Your task to perform on an android device: toggle priority inbox in the gmail app Image 0: 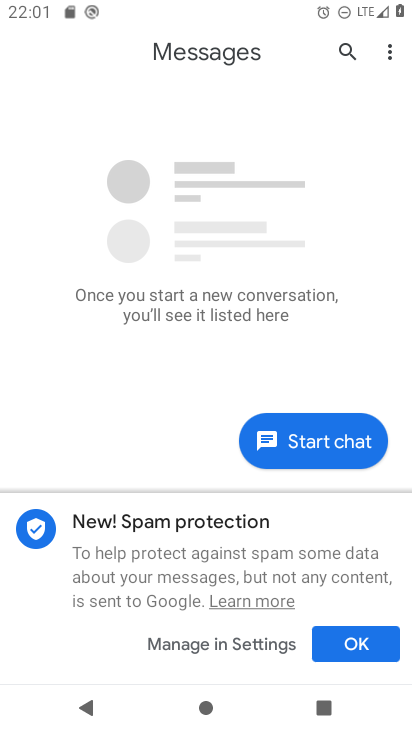
Step 0: press home button
Your task to perform on an android device: toggle priority inbox in the gmail app Image 1: 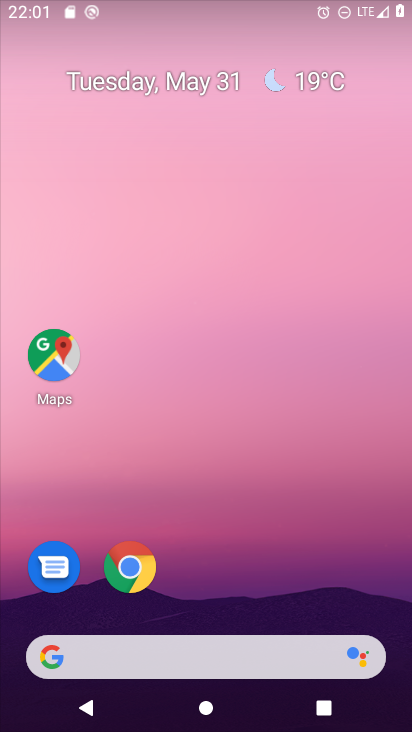
Step 1: drag from (132, 632) to (130, 223)
Your task to perform on an android device: toggle priority inbox in the gmail app Image 2: 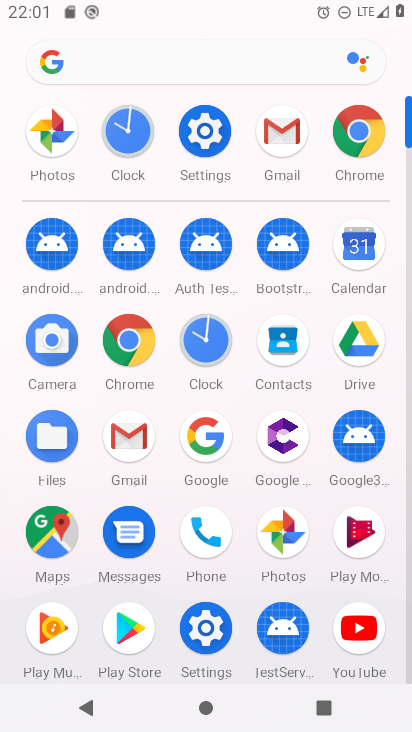
Step 2: click (140, 345)
Your task to perform on an android device: toggle priority inbox in the gmail app Image 3: 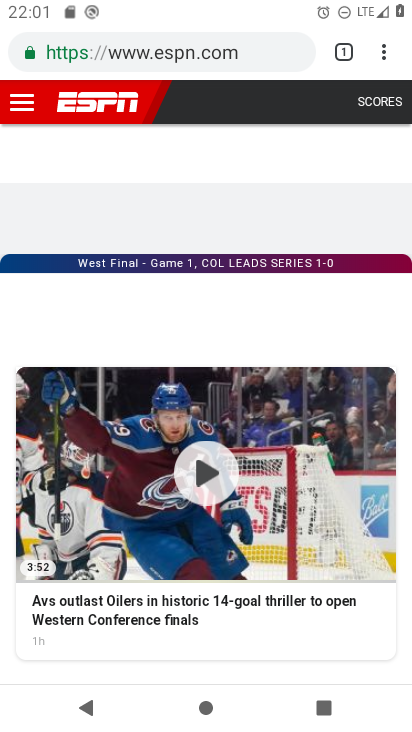
Step 3: click (256, 53)
Your task to perform on an android device: toggle priority inbox in the gmail app Image 4: 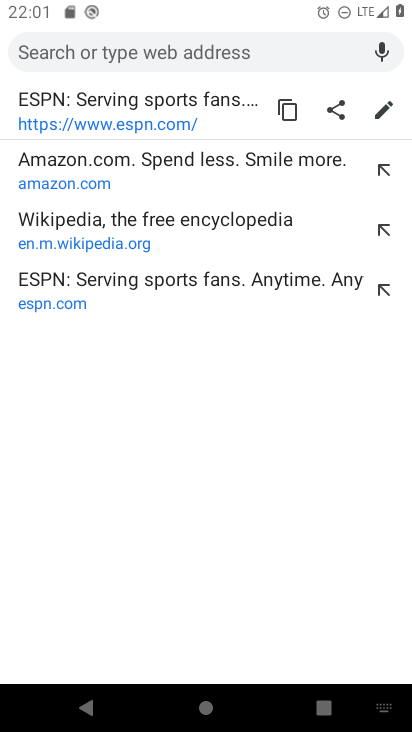
Step 4: press home button
Your task to perform on an android device: toggle priority inbox in the gmail app Image 5: 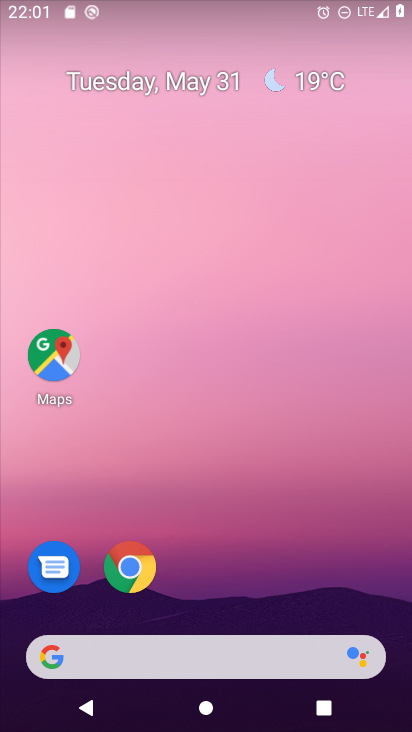
Step 5: drag from (176, 598) to (234, 239)
Your task to perform on an android device: toggle priority inbox in the gmail app Image 6: 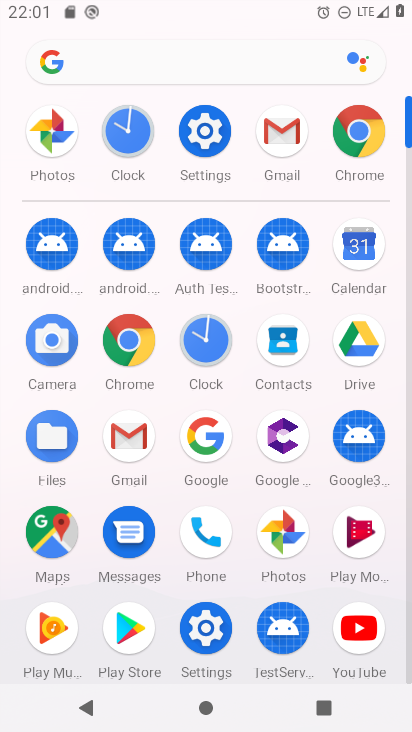
Step 6: click (286, 134)
Your task to perform on an android device: toggle priority inbox in the gmail app Image 7: 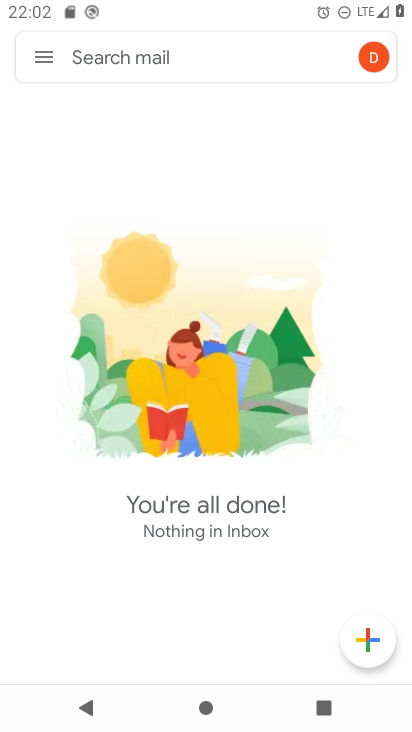
Step 7: click (43, 60)
Your task to perform on an android device: toggle priority inbox in the gmail app Image 8: 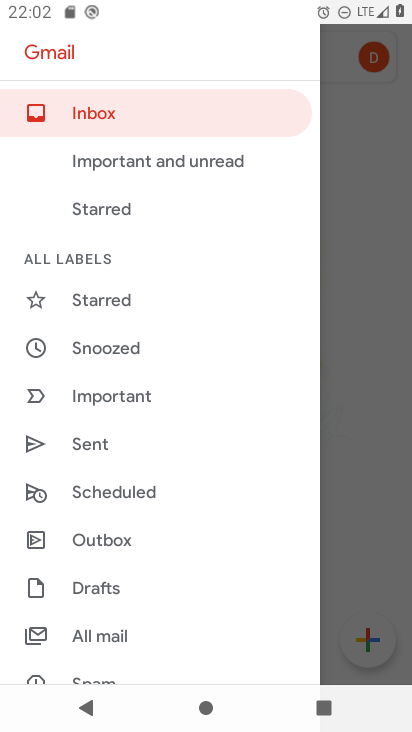
Step 8: drag from (85, 617) to (108, 186)
Your task to perform on an android device: toggle priority inbox in the gmail app Image 9: 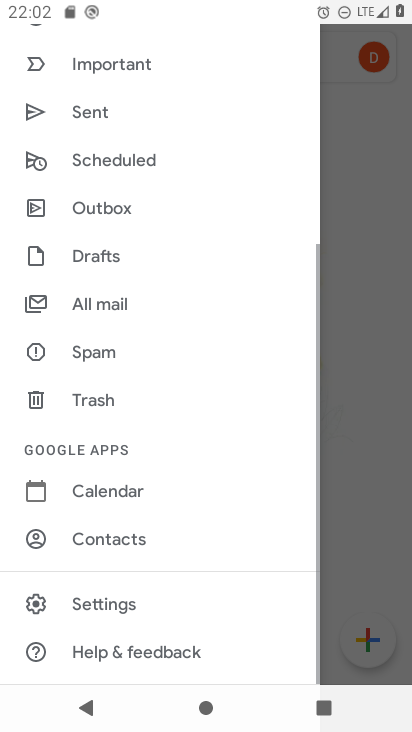
Step 9: click (95, 599)
Your task to perform on an android device: toggle priority inbox in the gmail app Image 10: 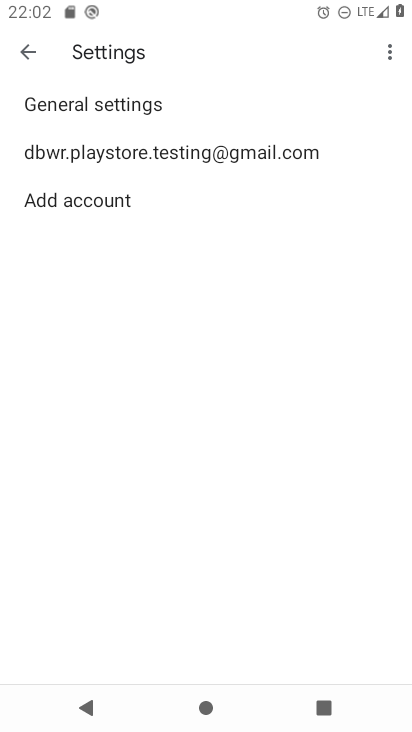
Step 10: click (143, 154)
Your task to perform on an android device: toggle priority inbox in the gmail app Image 11: 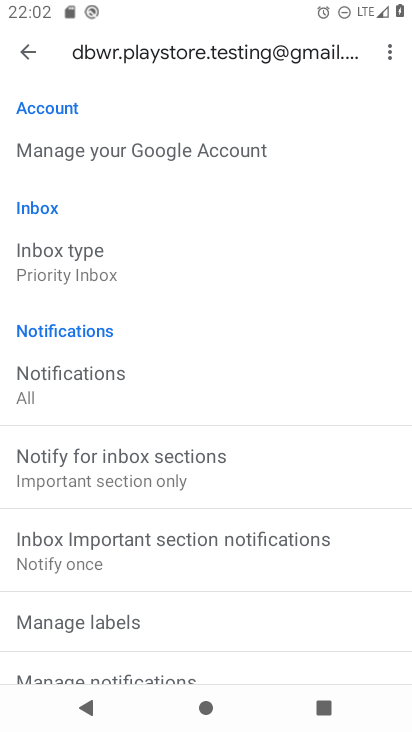
Step 11: click (68, 265)
Your task to perform on an android device: toggle priority inbox in the gmail app Image 12: 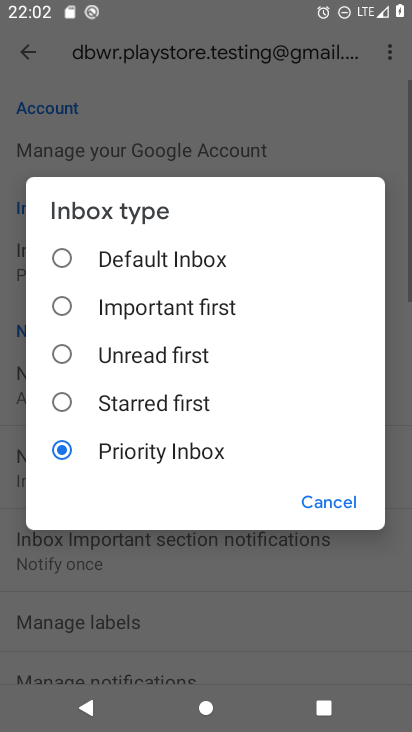
Step 12: click (133, 249)
Your task to perform on an android device: toggle priority inbox in the gmail app Image 13: 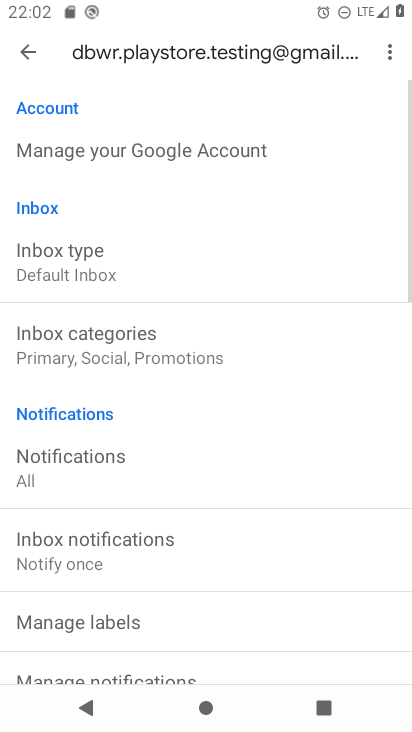
Step 13: task complete